Your task to perform on an android device: turn on sleep mode Image 0: 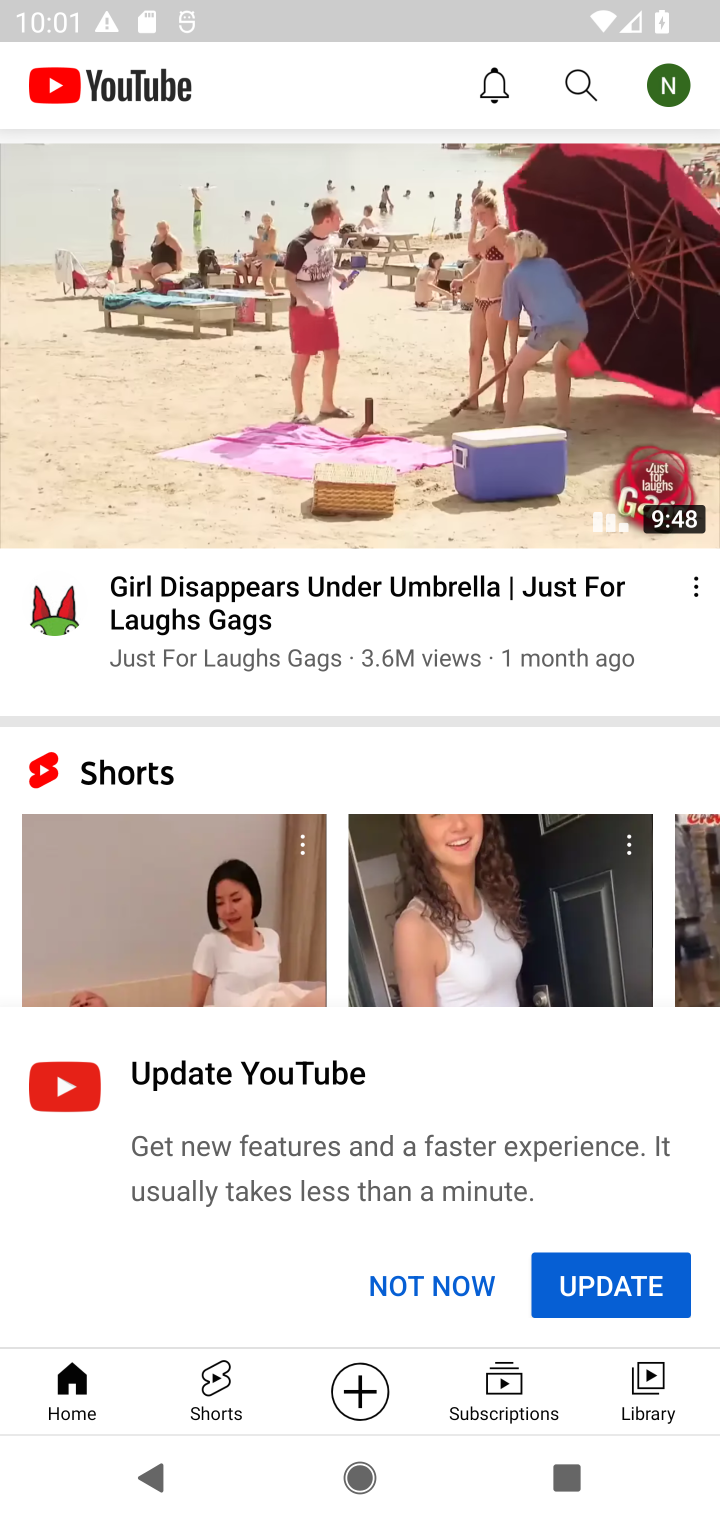
Step 0: press home button
Your task to perform on an android device: turn on sleep mode Image 1: 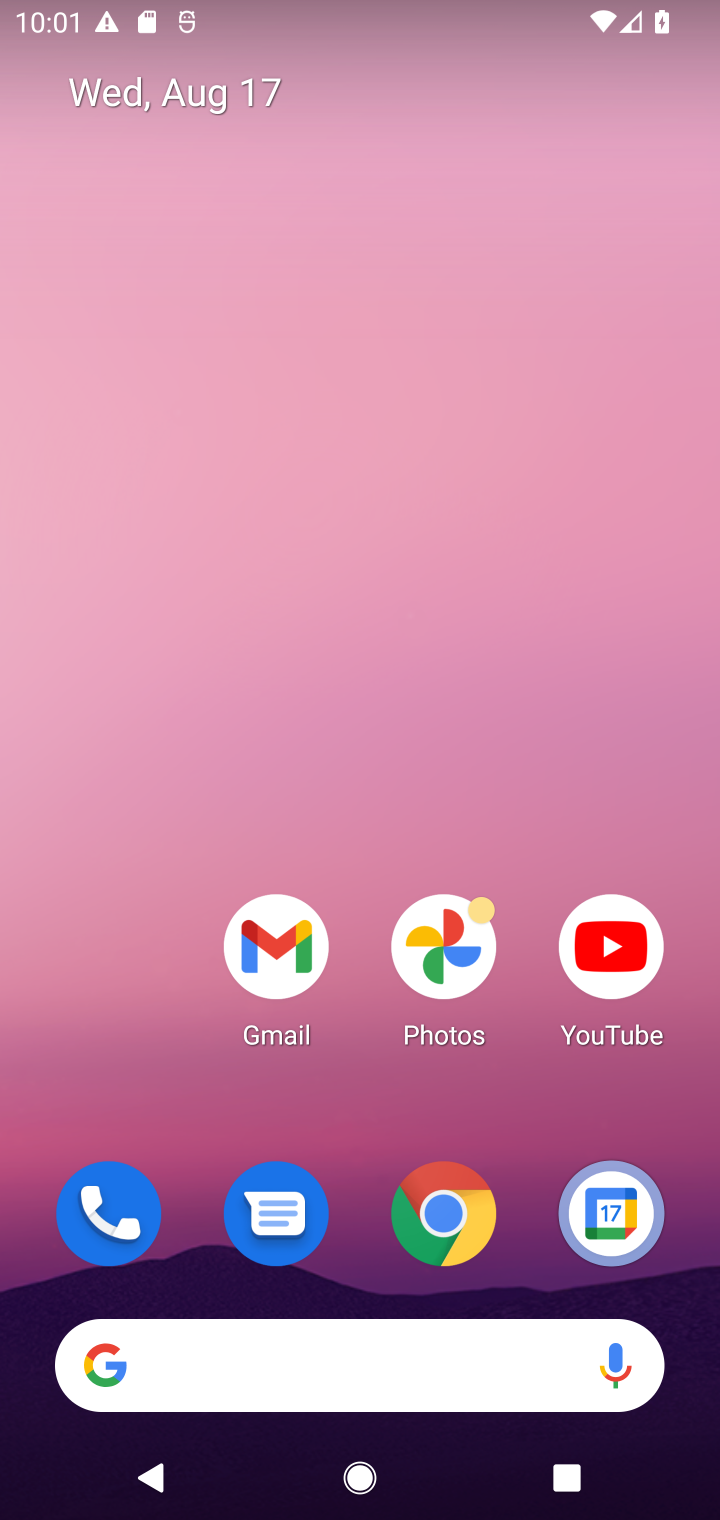
Step 1: task complete